Your task to perform on an android device: change the clock display to show seconds Image 0: 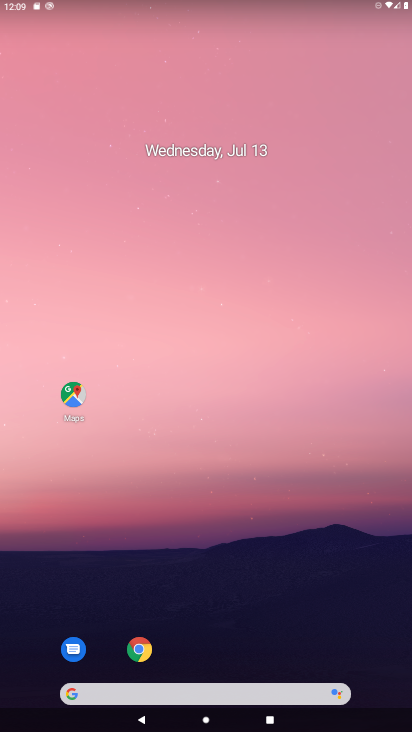
Step 0: drag from (380, 680) to (337, 187)
Your task to perform on an android device: change the clock display to show seconds Image 1: 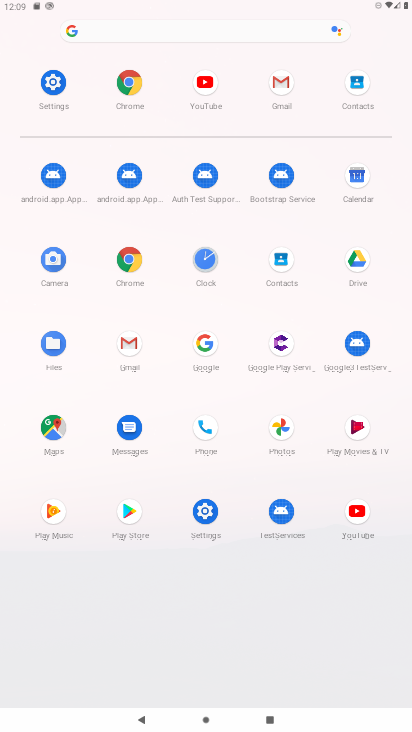
Step 1: click (202, 261)
Your task to perform on an android device: change the clock display to show seconds Image 2: 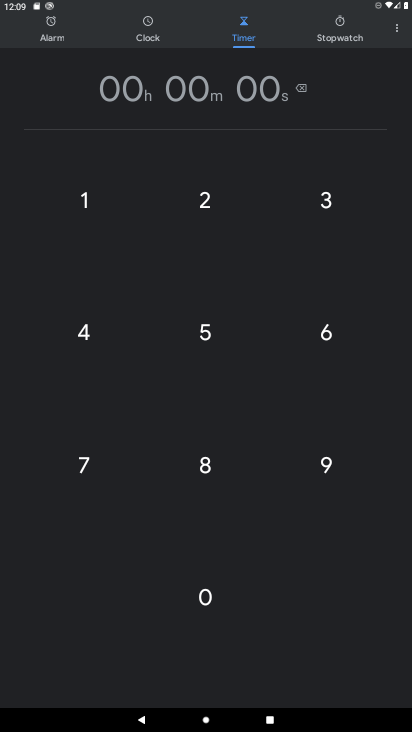
Step 2: click (396, 32)
Your task to perform on an android device: change the clock display to show seconds Image 3: 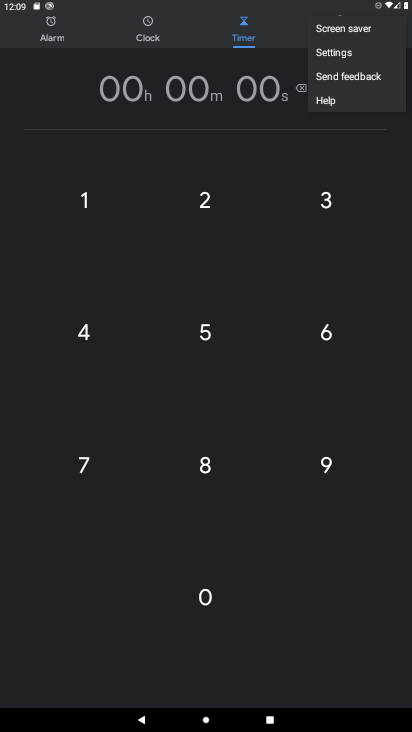
Step 3: click (326, 53)
Your task to perform on an android device: change the clock display to show seconds Image 4: 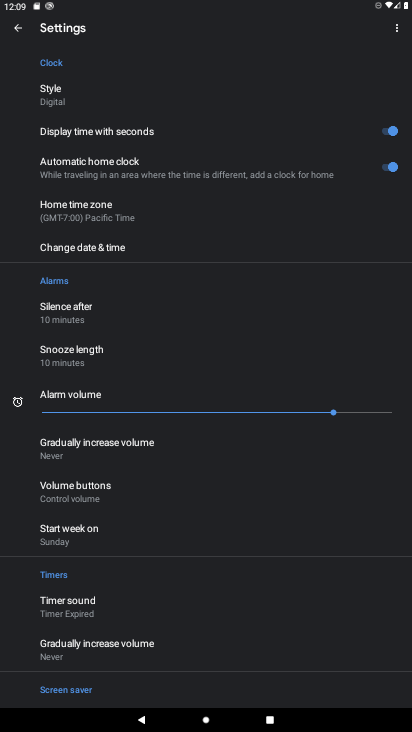
Step 4: task complete